Your task to perform on an android device: delete a single message in the gmail app Image 0: 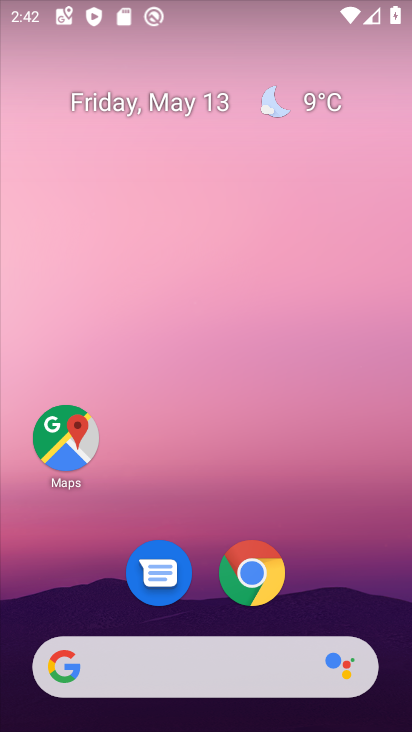
Step 0: drag from (339, 540) to (275, 107)
Your task to perform on an android device: delete a single message in the gmail app Image 1: 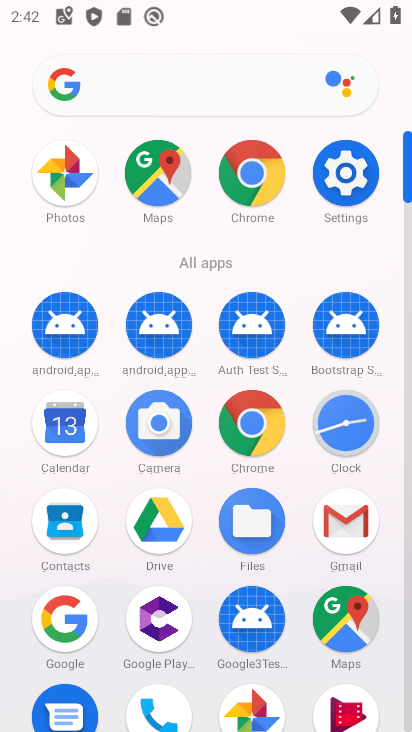
Step 1: click (343, 521)
Your task to perform on an android device: delete a single message in the gmail app Image 2: 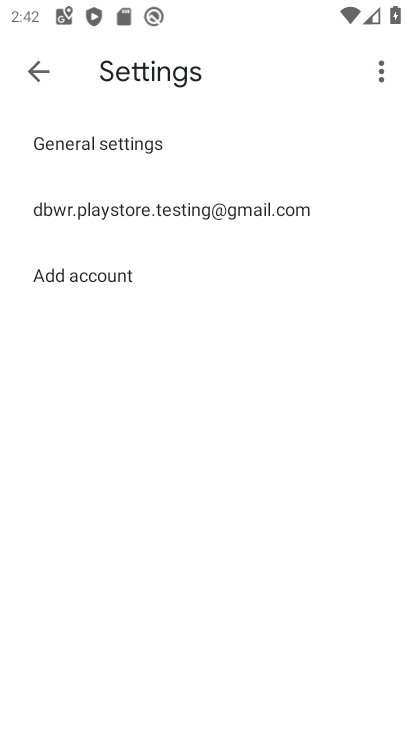
Step 2: press back button
Your task to perform on an android device: delete a single message in the gmail app Image 3: 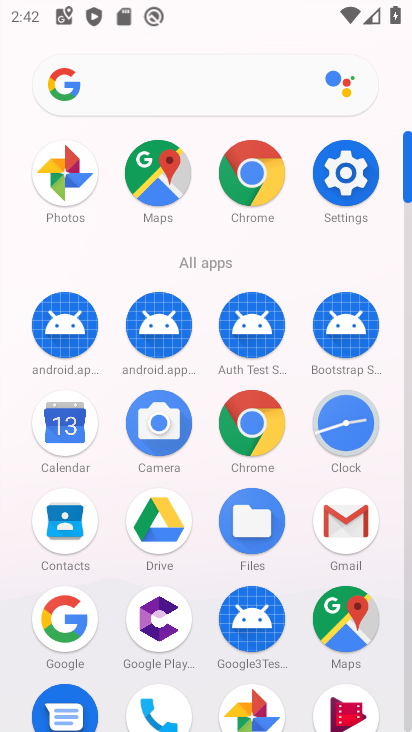
Step 3: click (351, 516)
Your task to perform on an android device: delete a single message in the gmail app Image 4: 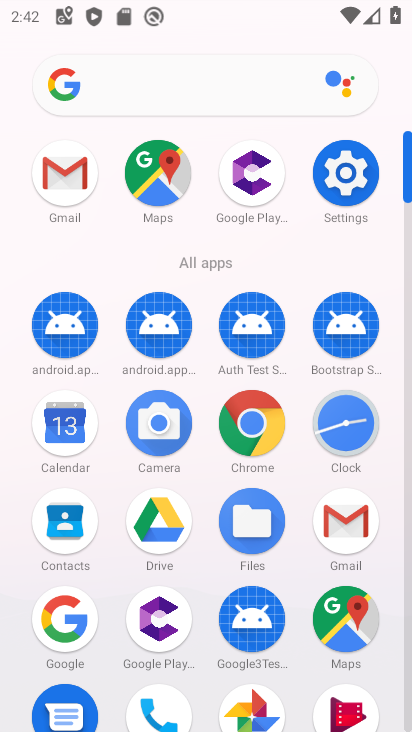
Step 4: click (342, 518)
Your task to perform on an android device: delete a single message in the gmail app Image 5: 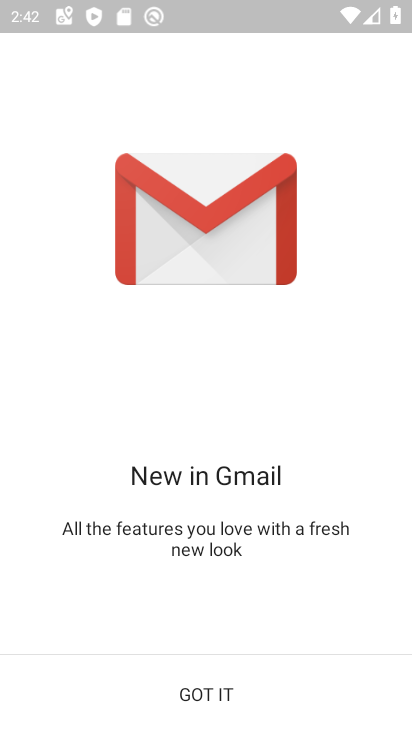
Step 5: click (226, 699)
Your task to perform on an android device: delete a single message in the gmail app Image 6: 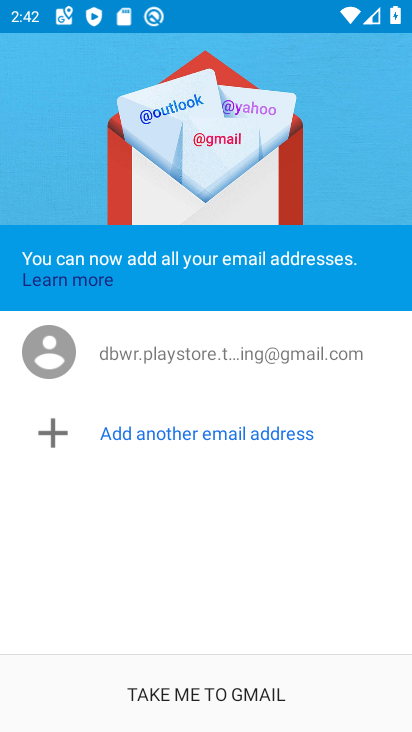
Step 6: click (228, 689)
Your task to perform on an android device: delete a single message in the gmail app Image 7: 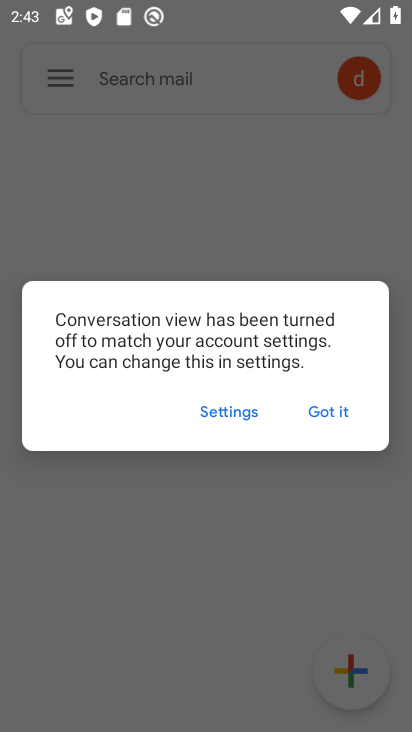
Step 7: click (331, 417)
Your task to perform on an android device: delete a single message in the gmail app Image 8: 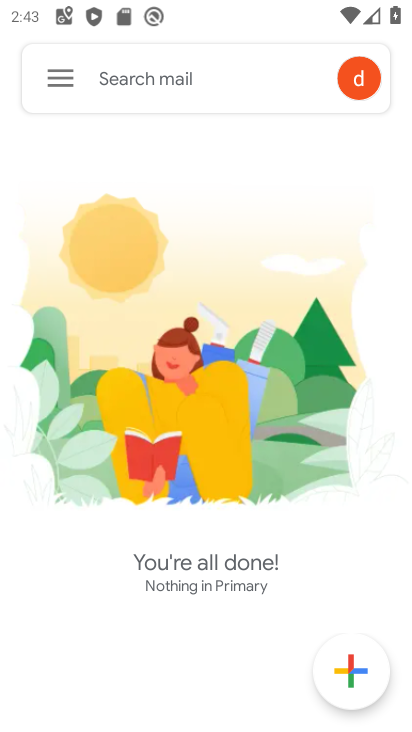
Step 8: click (59, 81)
Your task to perform on an android device: delete a single message in the gmail app Image 9: 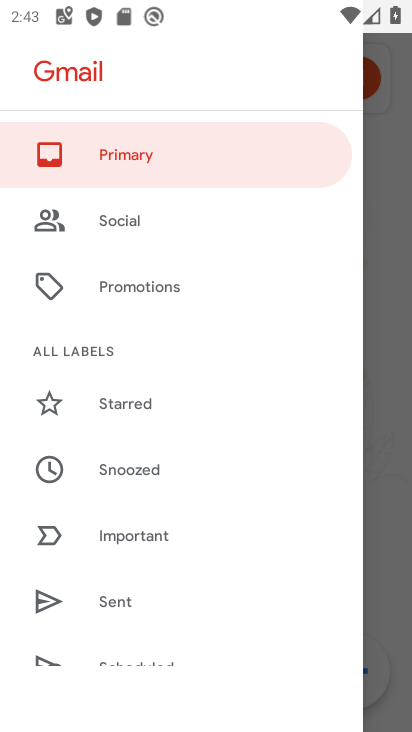
Step 9: drag from (110, 526) to (153, 454)
Your task to perform on an android device: delete a single message in the gmail app Image 10: 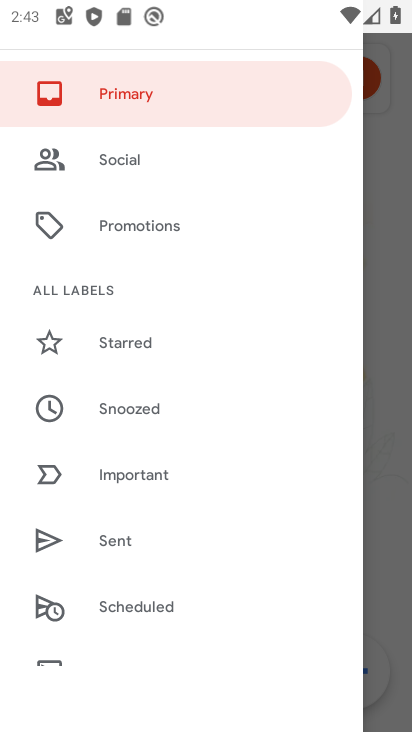
Step 10: drag from (139, 516) to (192, 400)
Your task to perform on an android device: delete a single message in the gmail app Image 11: 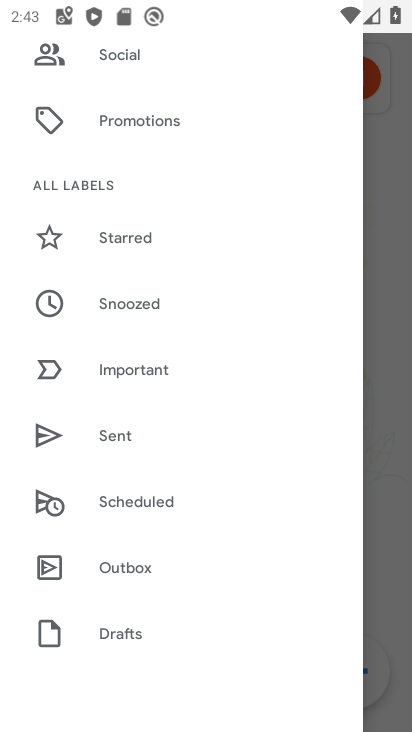
Step 11: drag from (133, 561) to (178, 454)
Your task to perform on an android device: delete a single message in the gmail app Image 12: 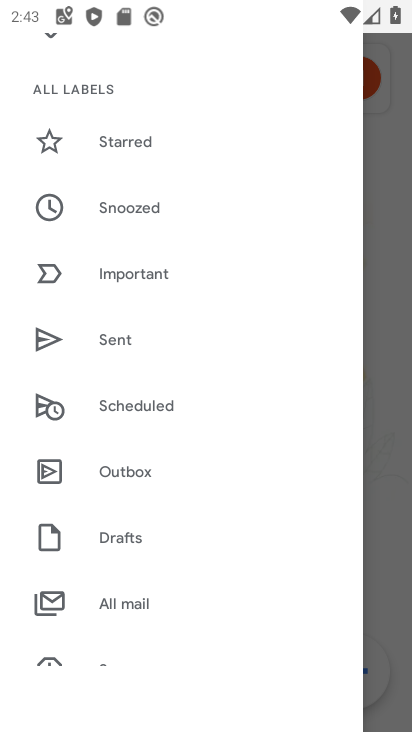
Step 12: click (117, 600)
Your task to perform on an android device: delete a single message in the gmail app Image 13: 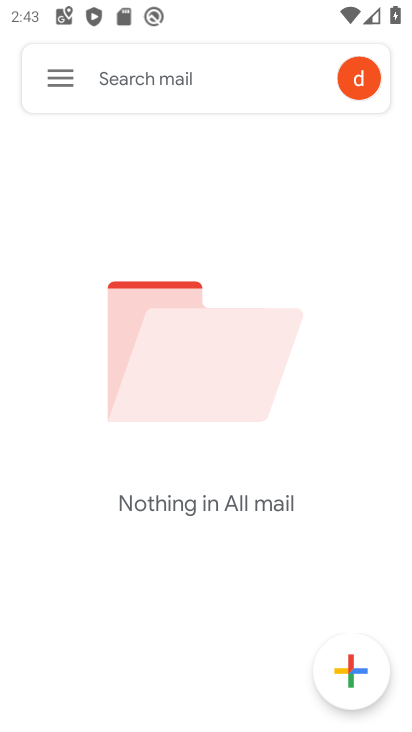
Step 13: task complete